Your task to perform on an android device: open app "Google Docs" (install if not already installed) Image 0: 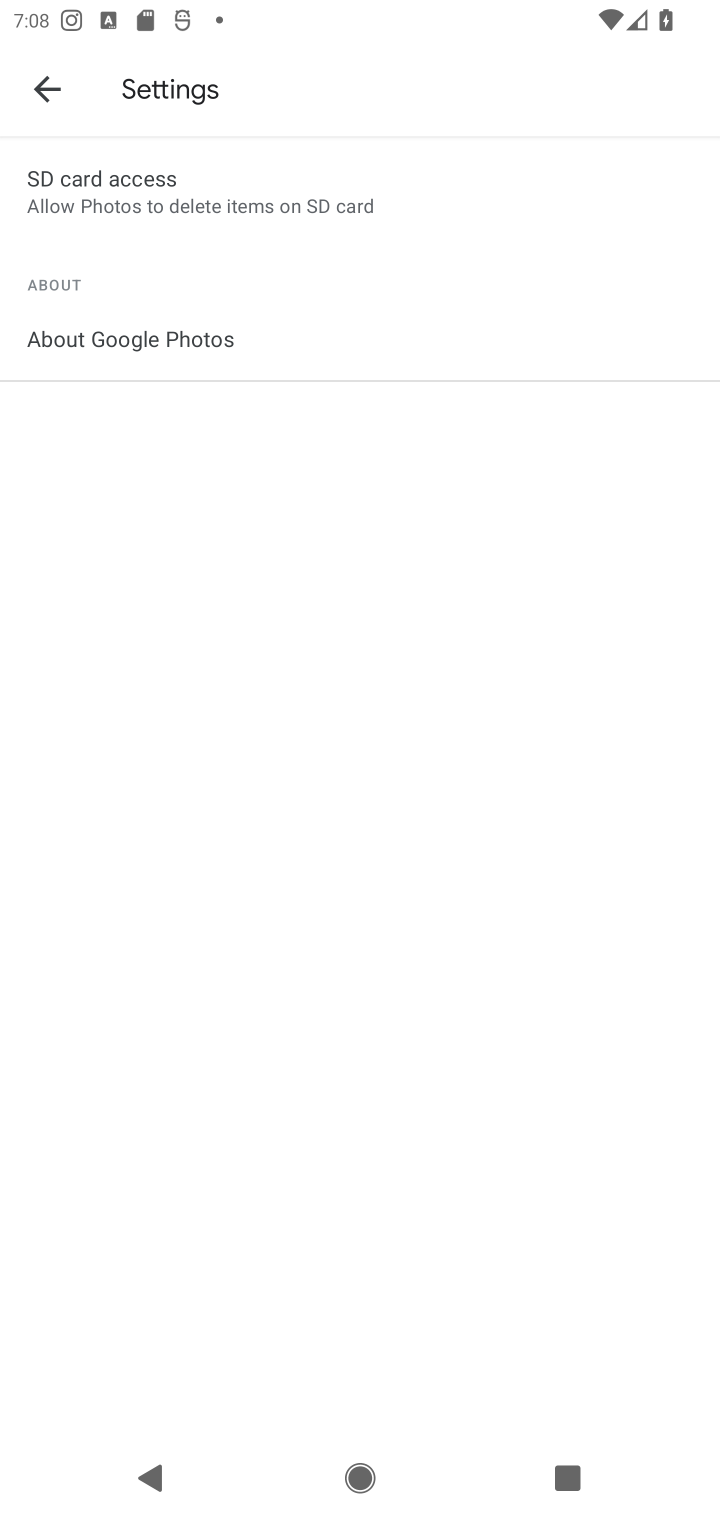
Step 0: press home button
Your task to perform on an android device: open app "Google Docs" (install if not already installed) Image 1: 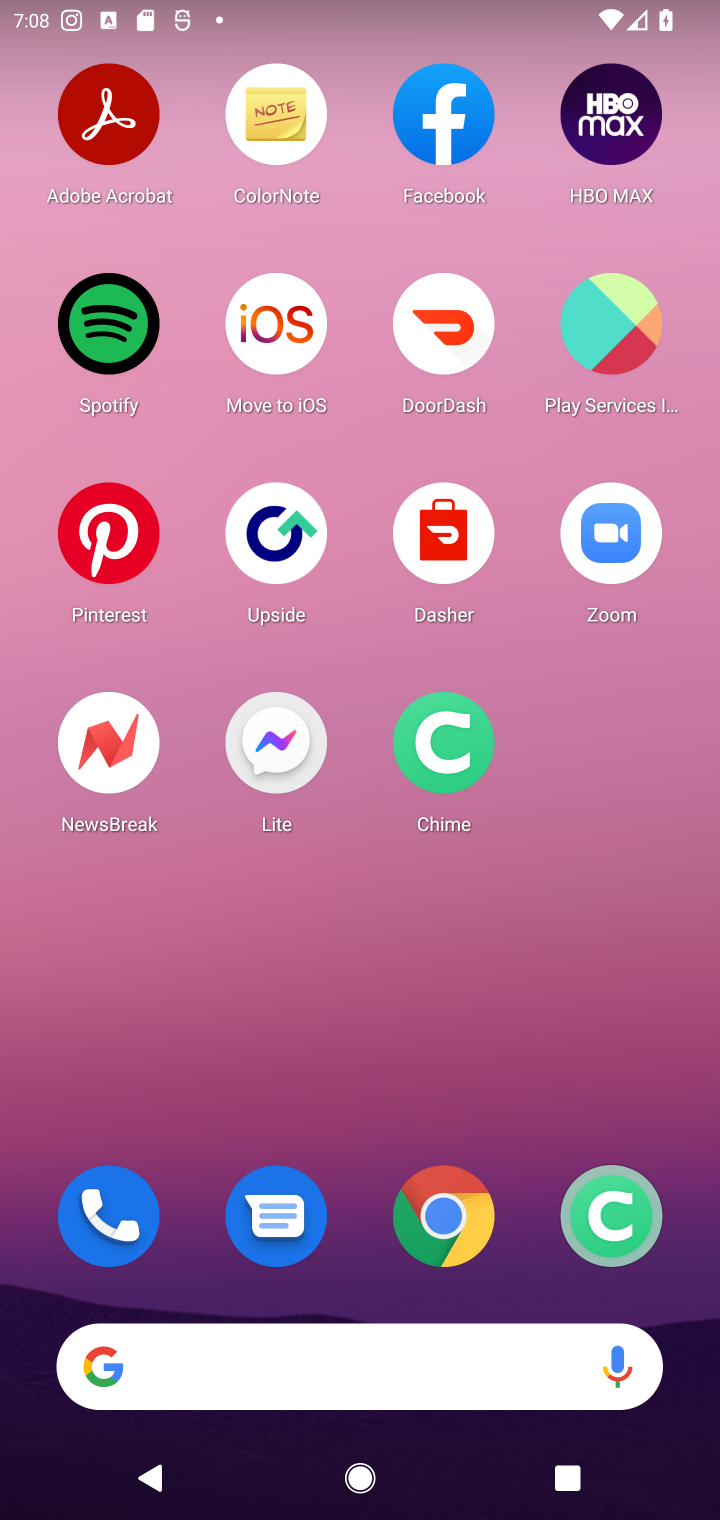
Step 1: drag from (328, 1063) to (353, 943)
Your task to perform on an android device: open app "Google Docs" (install if not already installed) Image 2: 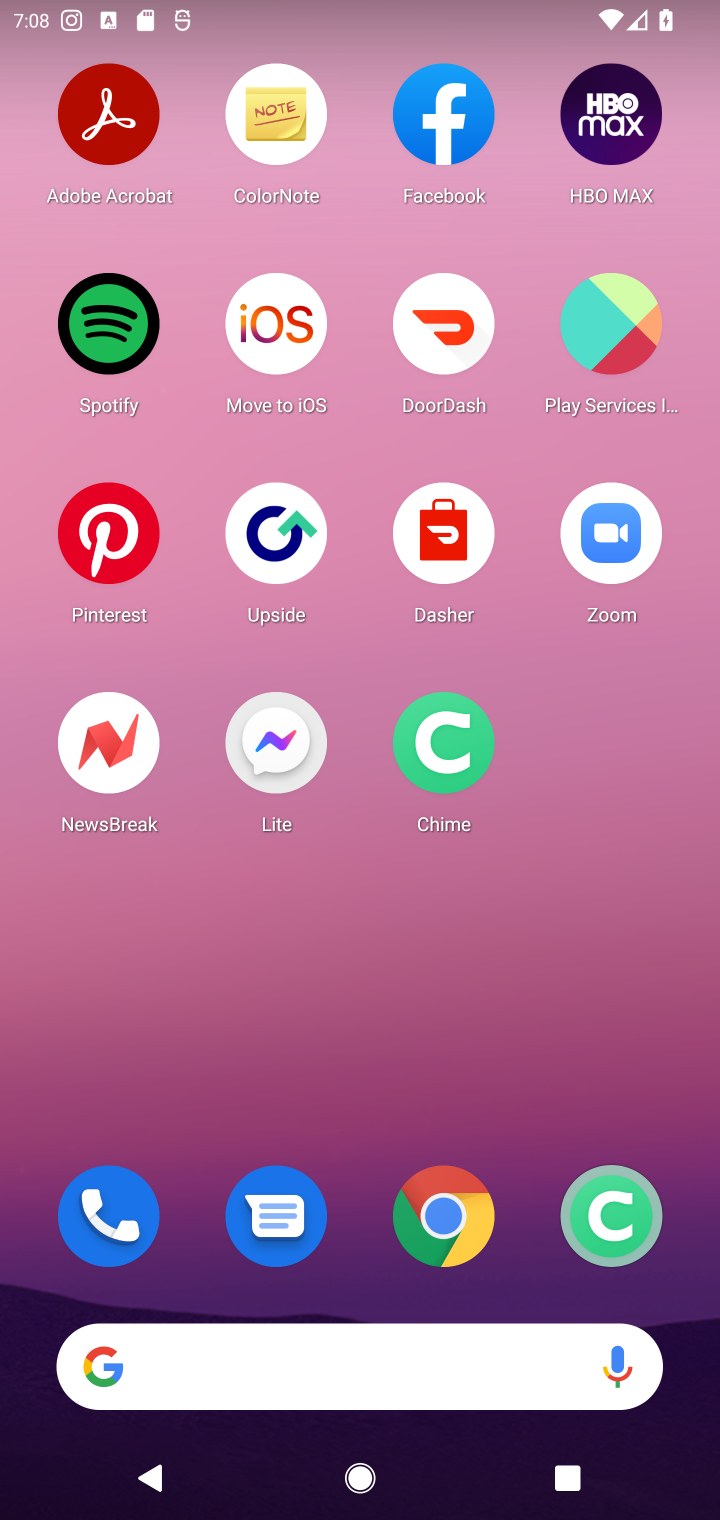
Step 2: drag from (307, 1055) to (386, 197)
Your task to perform on an android device: open app "Google Docs" (install if not already installed) Image 3: 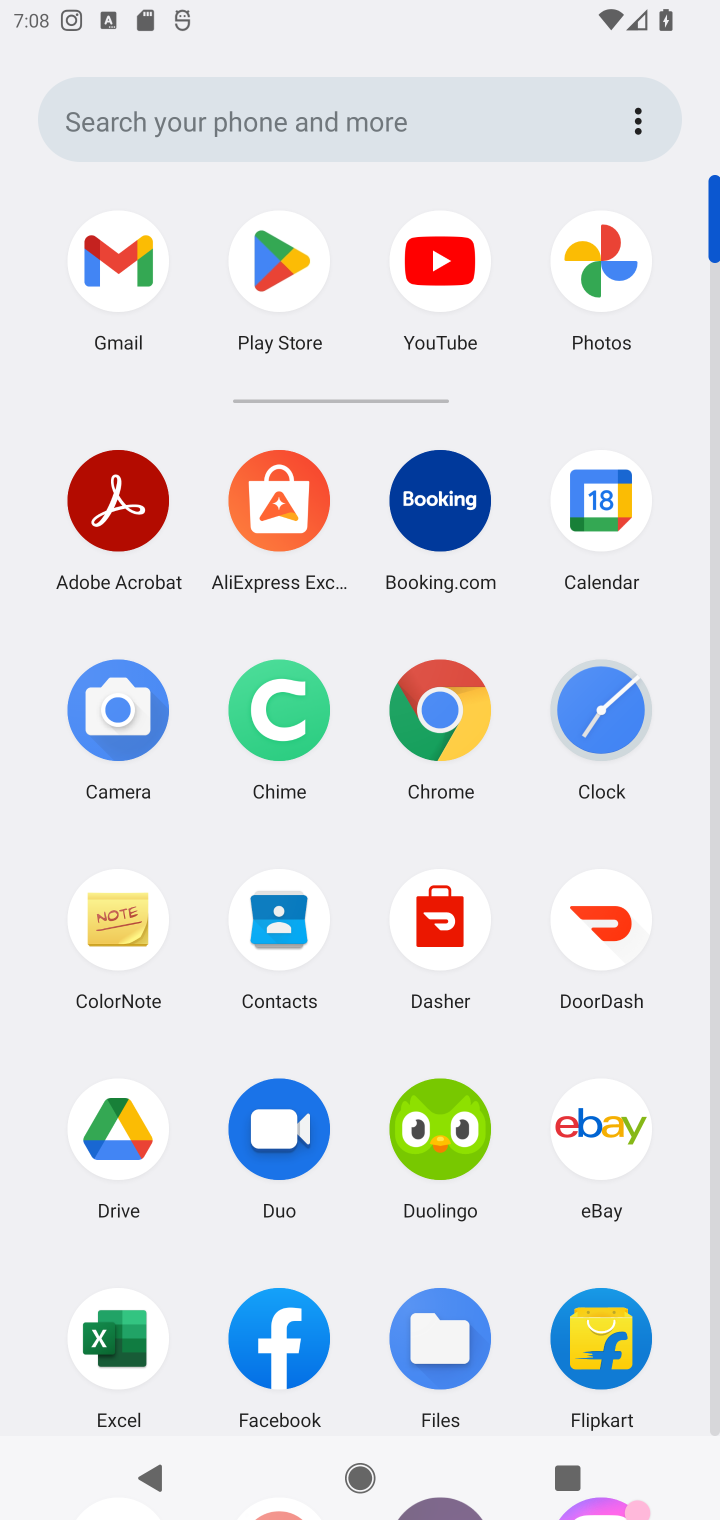
Step 3: click (303, 281)
Your task to perform on an android device: open app "Google Docs" (install if not already installed) Image 4: 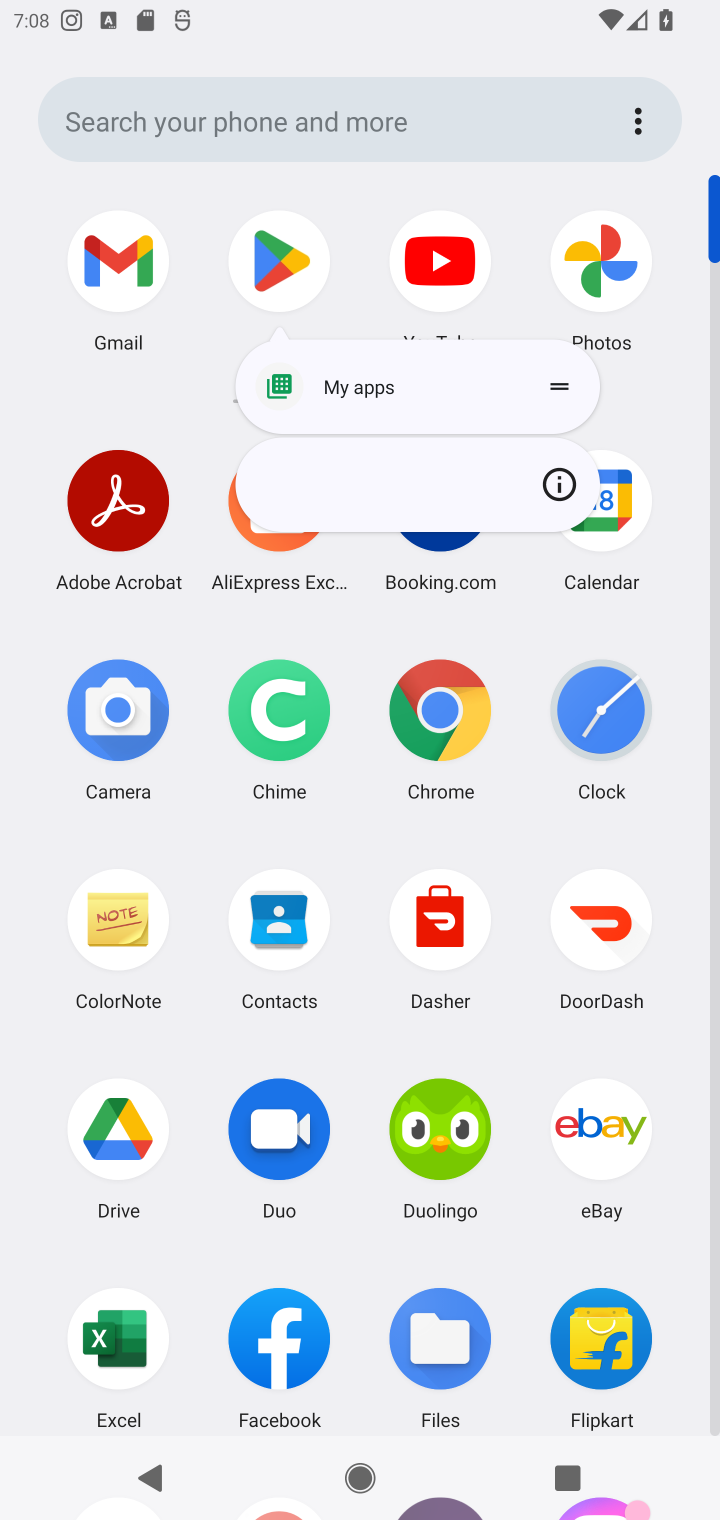
Step 4: click (274, 253)
Your task to perform on an android device: open app "Google Docs" (install if not already installed) Image 5: 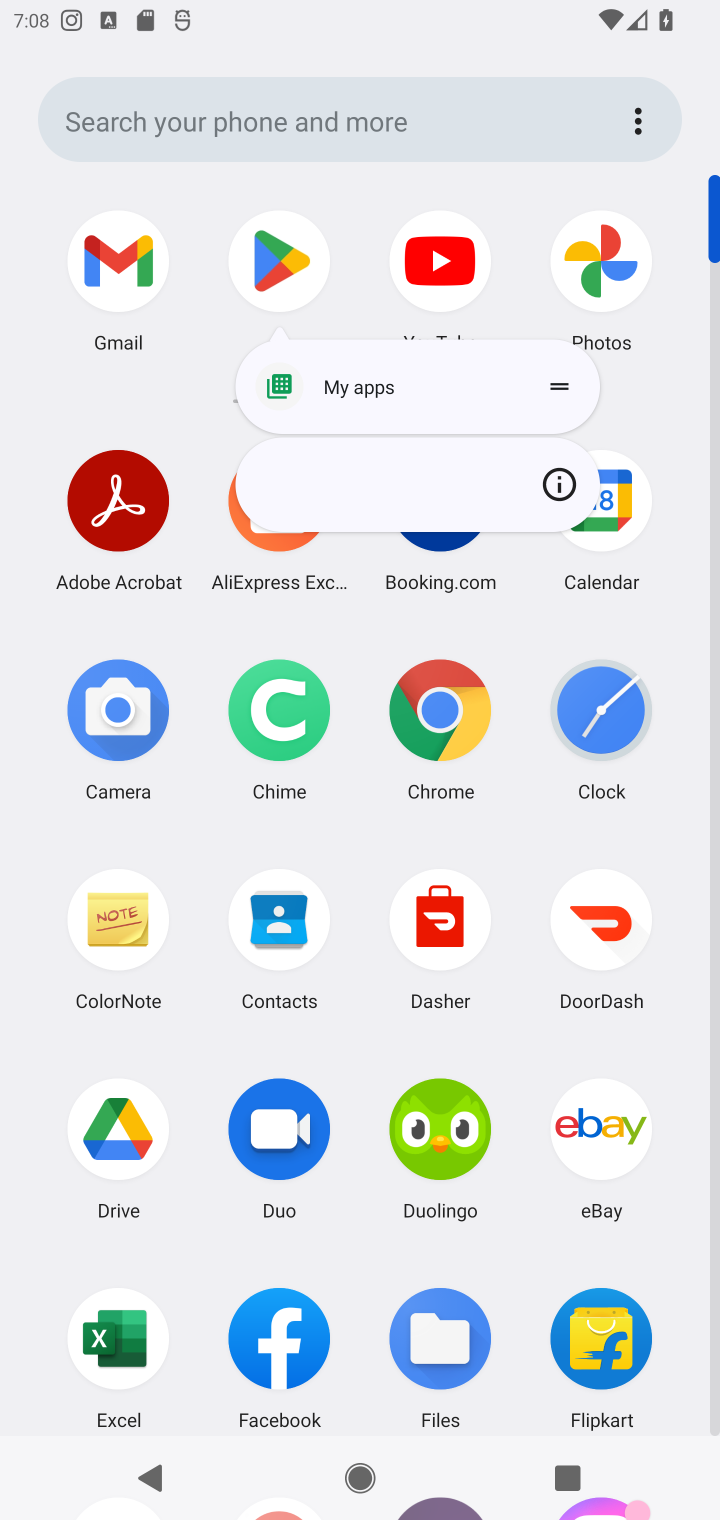
Step 5: click (274, 253)
Your task to perform on an android device: open app "Google Docs" (install if not already installed) Image 6: 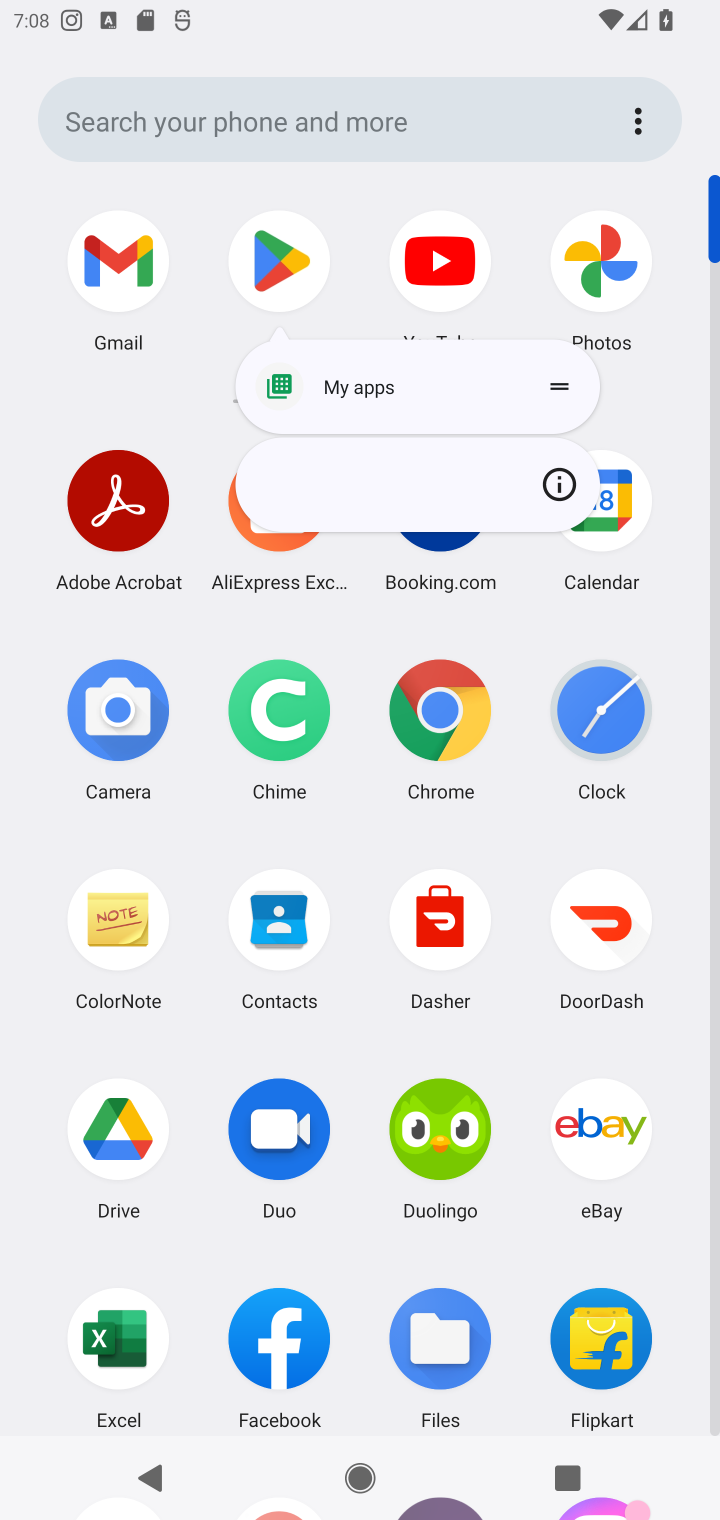
Step 6: click (275, 268)
Your task to perform on an android device: open app "Google Docs" (install if not already installed) Image 7: 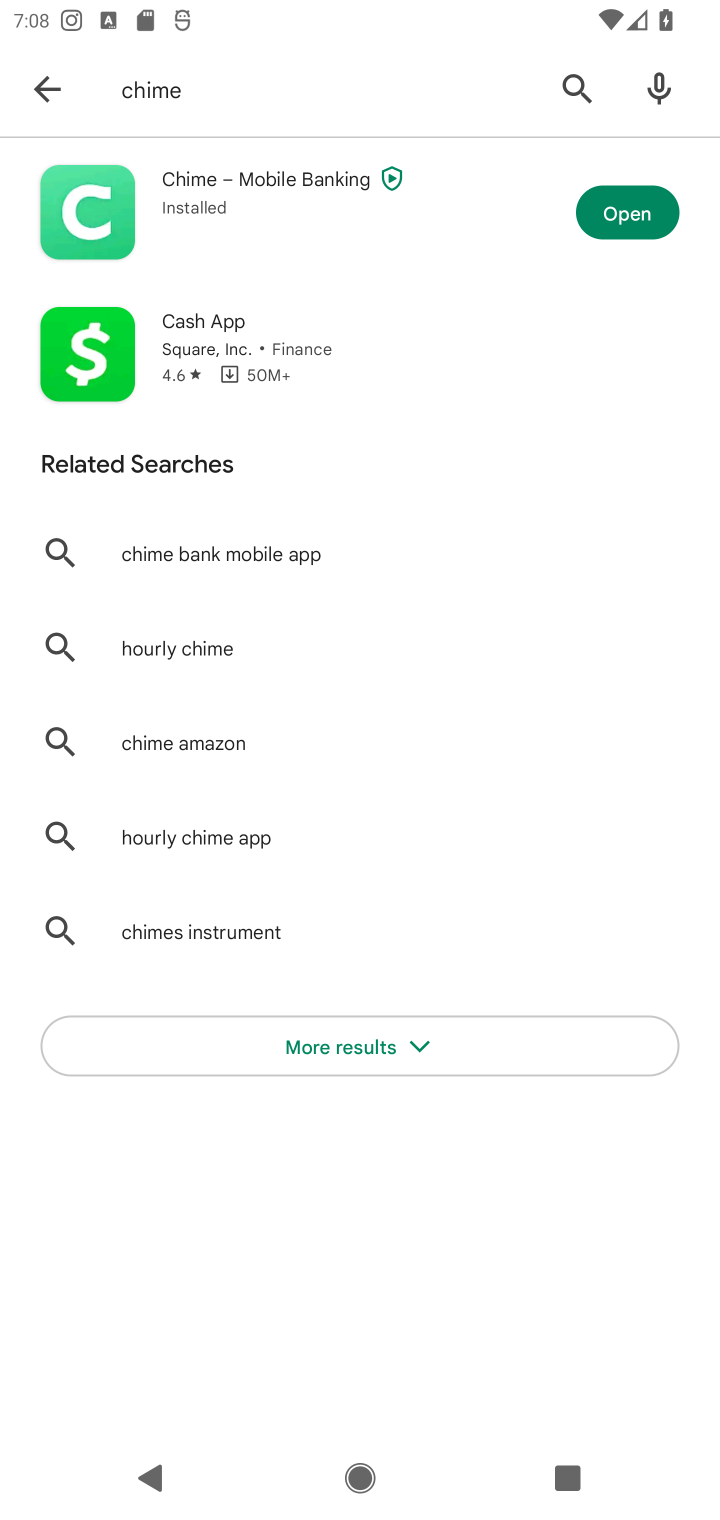
Step 7: click (565, 75)
Your task to perform on an android device: open app "Google Docs" (install if not already installed) Image 8: 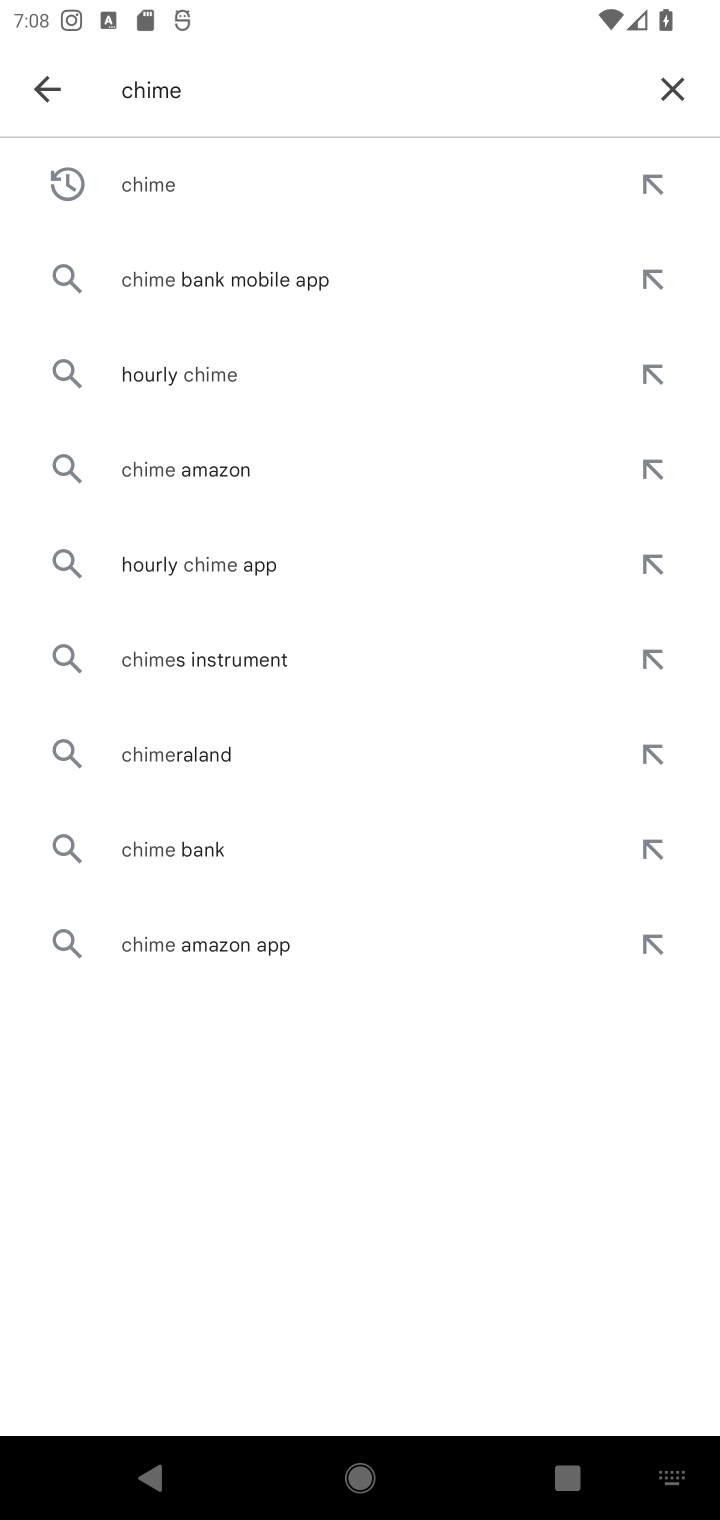
Step 8: click (662, 85)
Your task to perform on an android device: open app "Google Docs" (install if not already installed) Image 9: 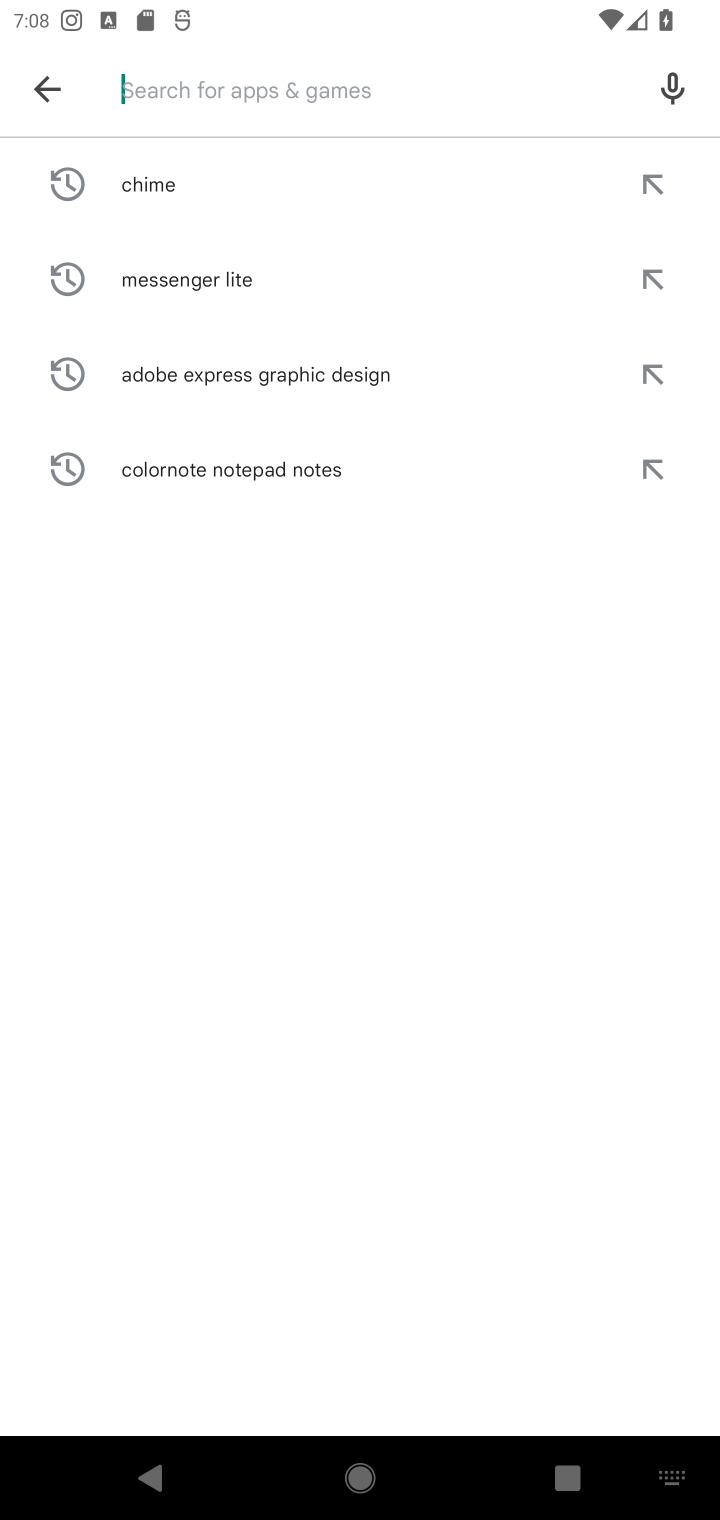
Step 9: type "Google Docs"
Your task to perform on an android device: open app "Google Docs" (install if not already installed) Image 10: 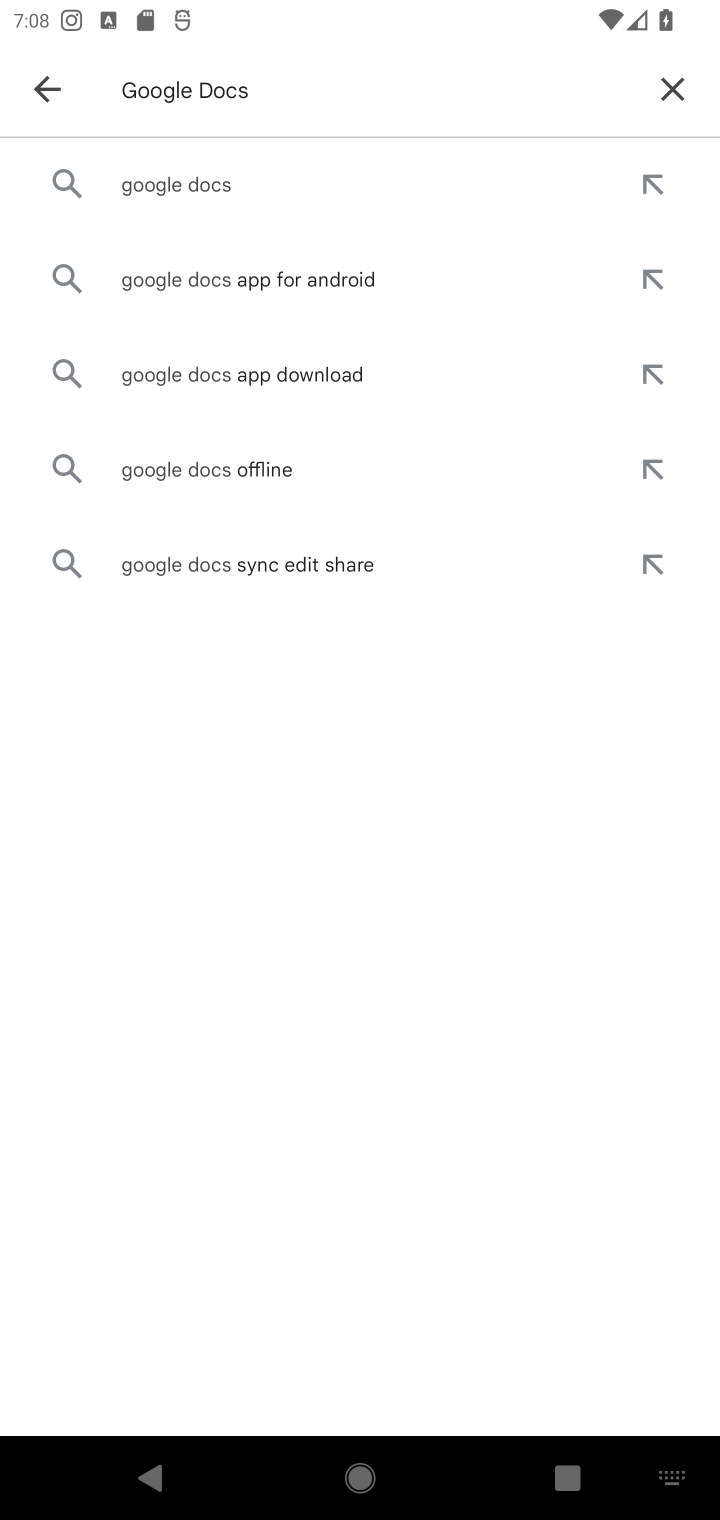
Step 10: click (254, 175)
Your task to perform on an android device: open app "Google Docs" (install if not already installed) Image 11: 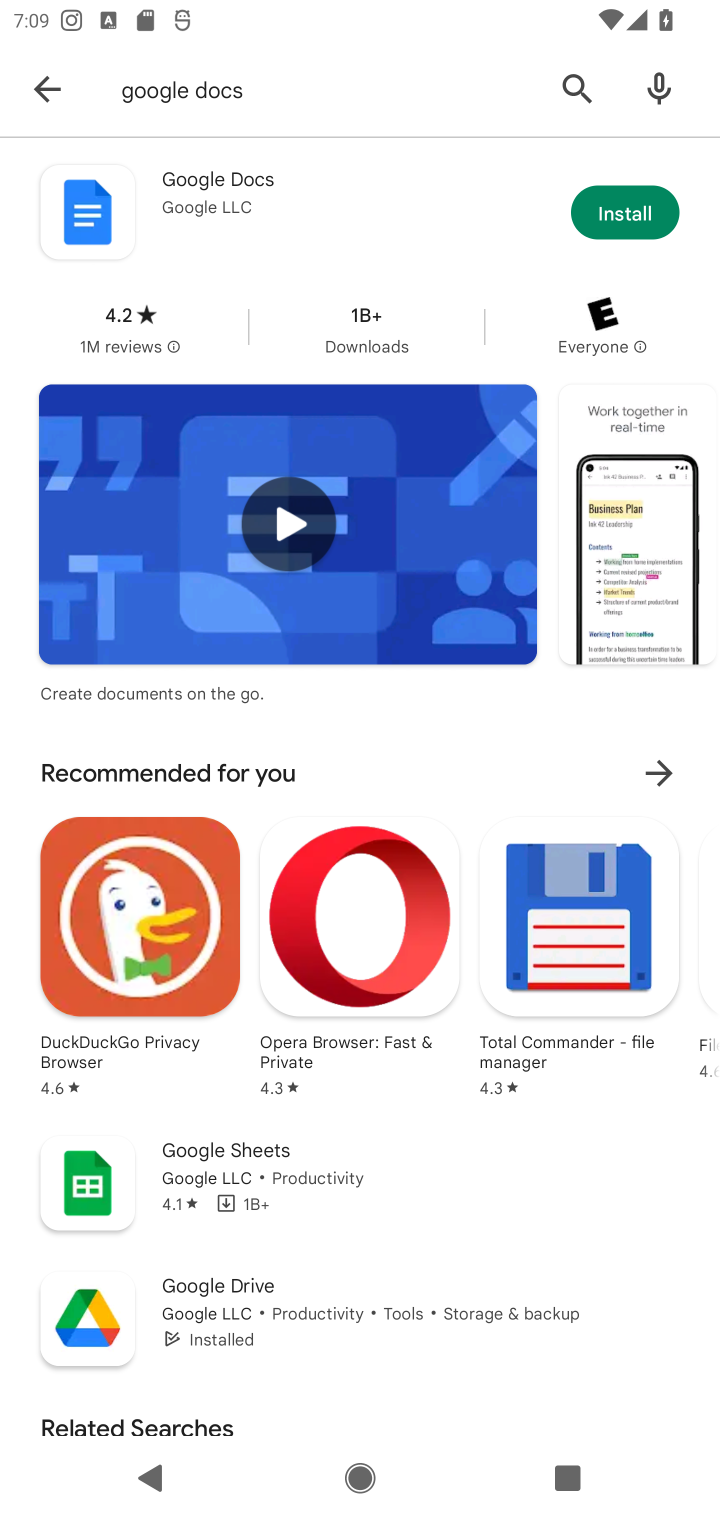
Step 11: click (628, 229)
Your task to perform on an android device: open app "Google Docs" (install if not already installed) Image 12: 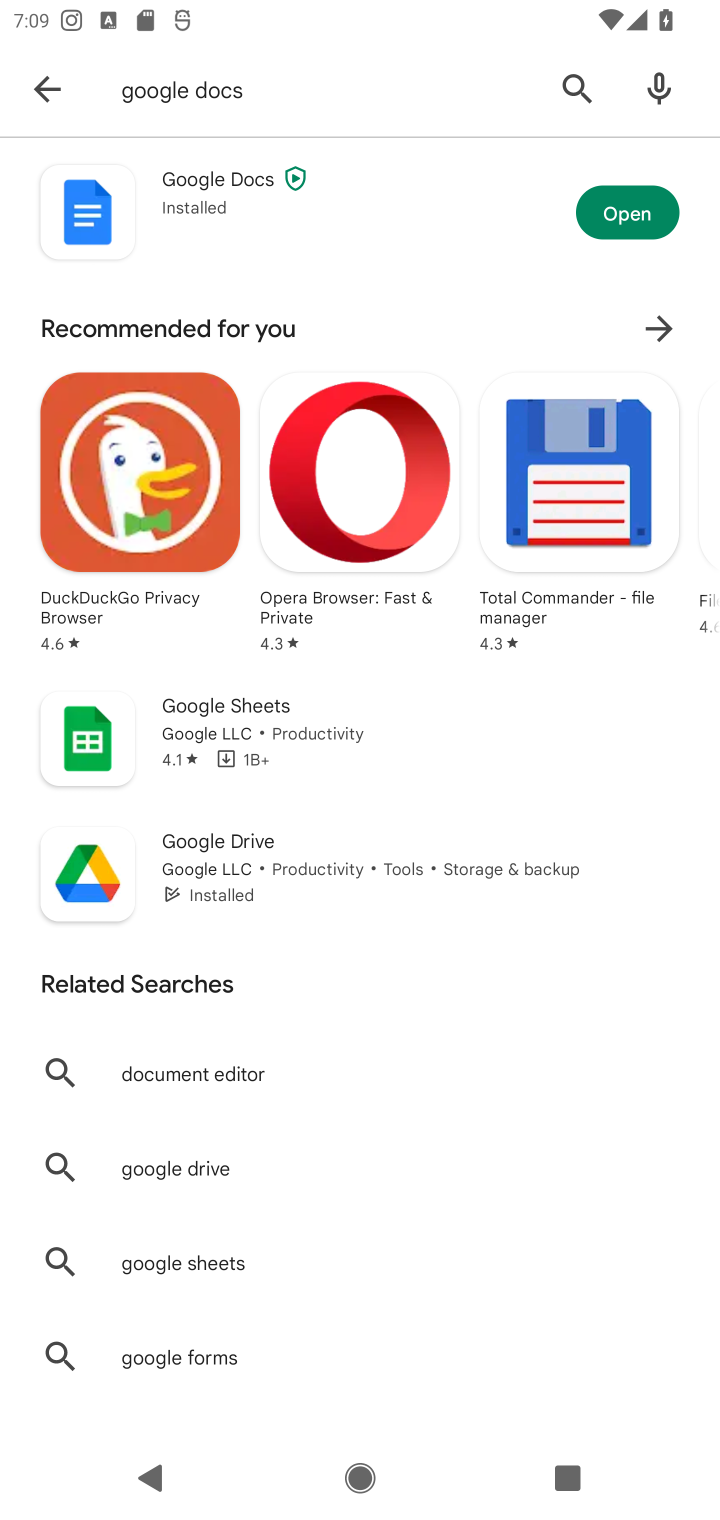
Step 12: click (610, 220)
Your task to perform on an android device: open app "Google Docs" (install if not already installed) Image 13: 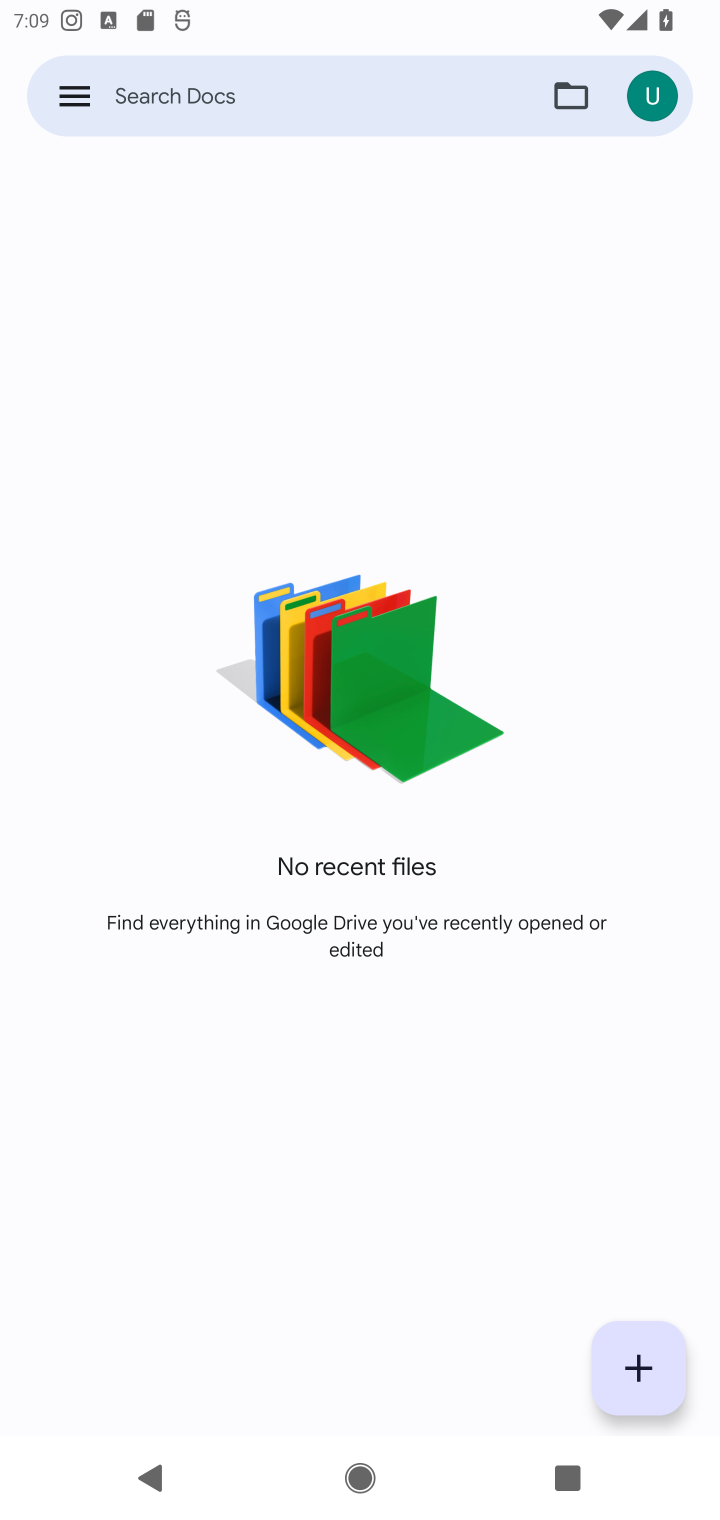
Step 13: task complete